Your task to perform on an android device: Go to Yahoo.com Image 0: 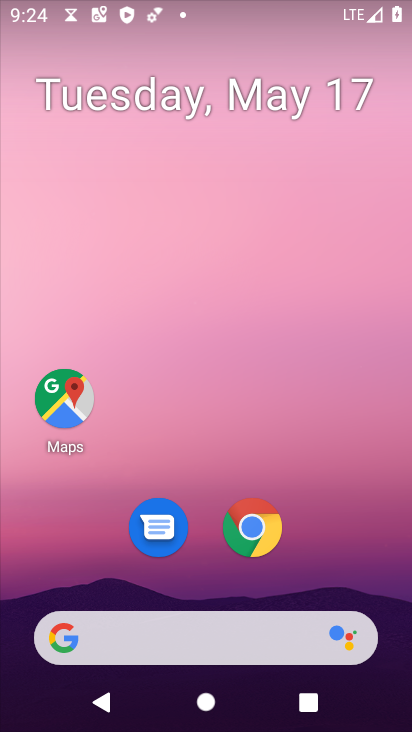
Step 0: click (258, 539)
Your task to perform on an android device: Go to Yahoo.com Image 1: 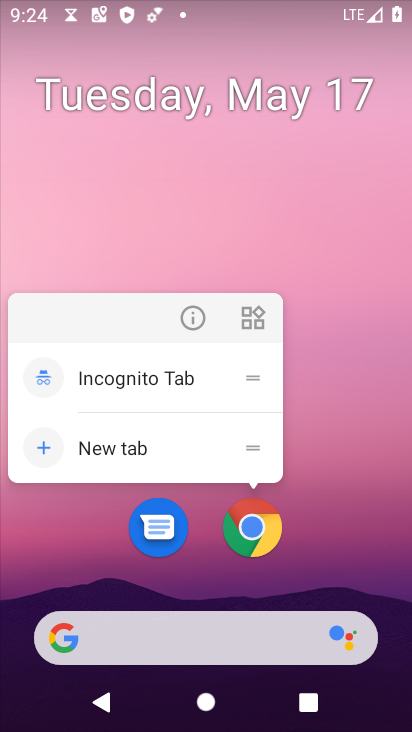
Step 1: click (258, 539)
Your task to perform on an android device: Go to Yahoo.com Image 2: 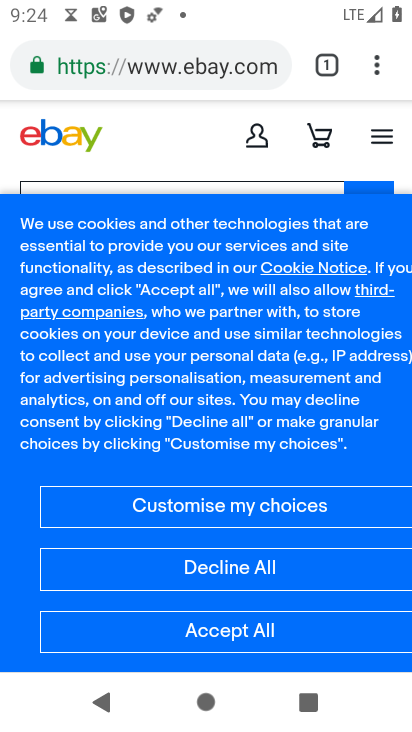
Step 2: drag from (374, 74) to (293, 128)
Your task to perform on an android device: Go to Yahoo.com Image 3: 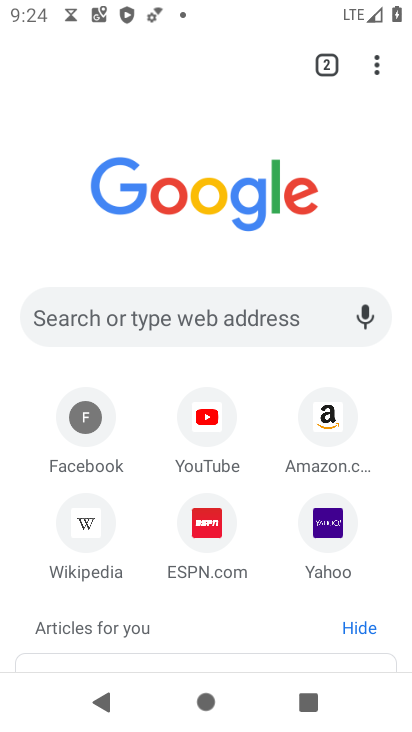
Step 3: click (330, 534)
Your task to perform on an android device: Go to Yahoo.com Image 4: 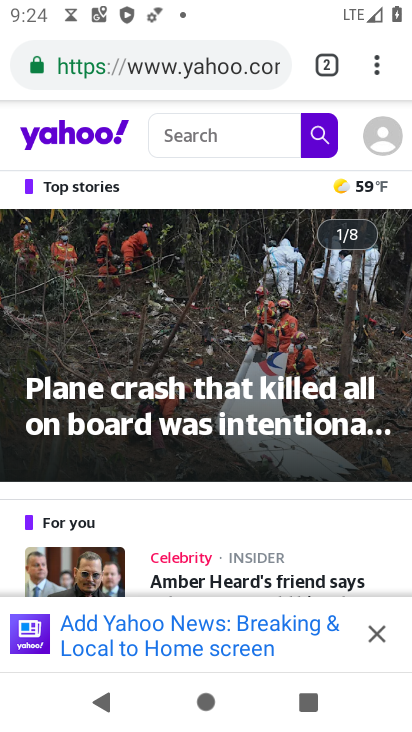
Step 4: task complete